Your task to perform on an android device: turn on airplane mode Image 0: 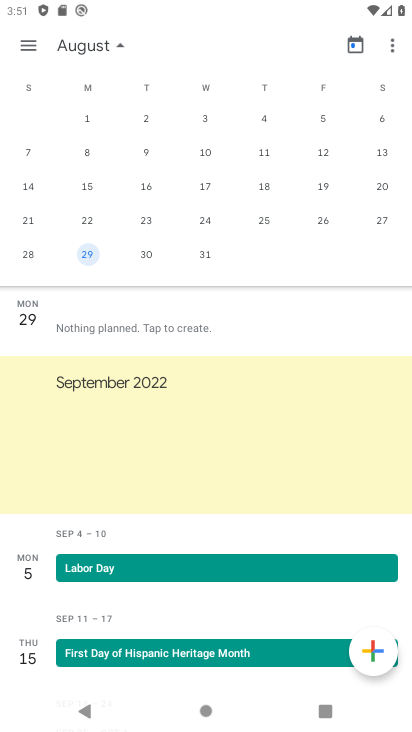
Step 0: press home button
Your task to perform on an android device: turn on airplane mode Image 1: 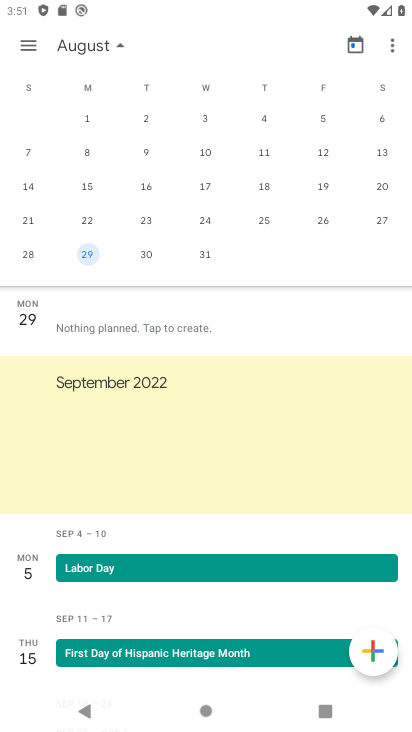
Step 1: press home button
Your task to perform on an android device: turn on airplane mode Image 2: 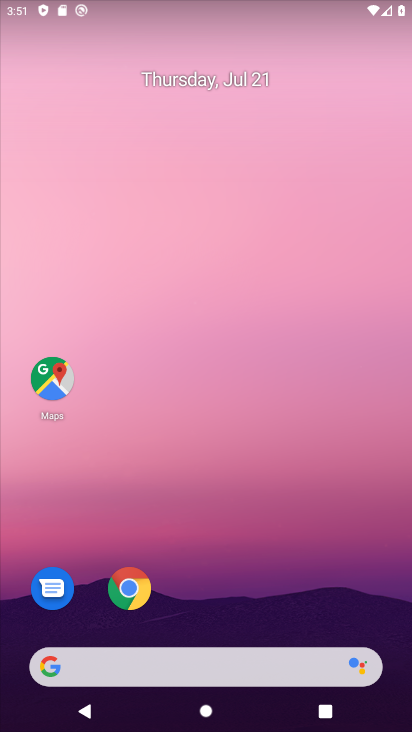
Step 2: drag from (380, 0) to (360, 140)
Your task to perform on an android device: turn on airplane mode Image 3: 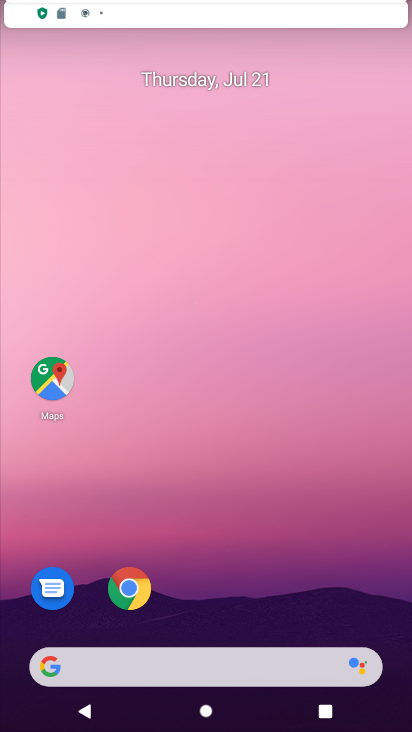
Step 3: drag from (360, 140) to (295, 574)
Your task to perform on an android device: turn on airplane mode Image 4: 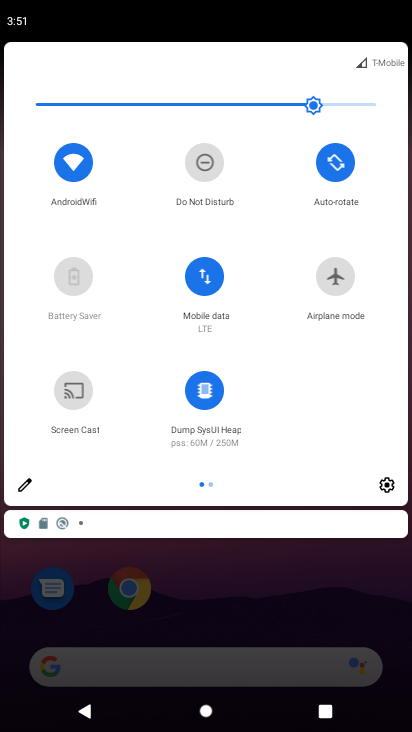
Step 4: click (334, 280)
Your task to perform on an android device: turn on airplane mode Image 5: 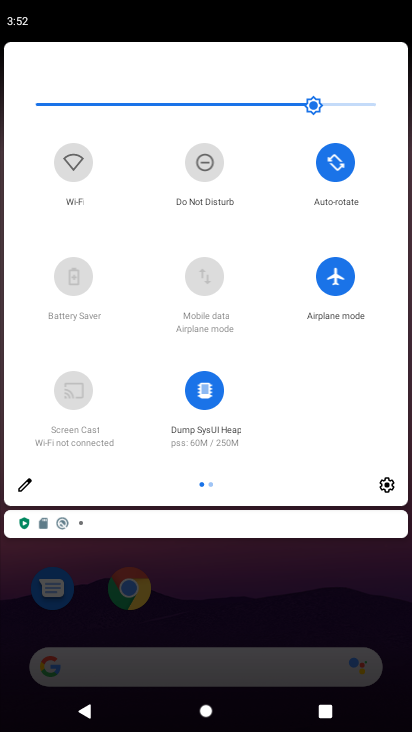
Step 5: task complete